Your task to perform on an android device: open a new tab in the chrome app Image 0: 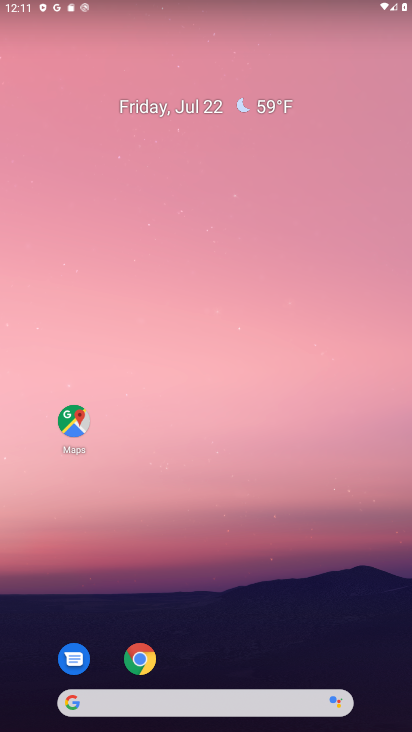
Step 0: drag from (385, 611) to (247, 0)
Your task to perform on an android device: open a new tab in the chrome app Image 1: 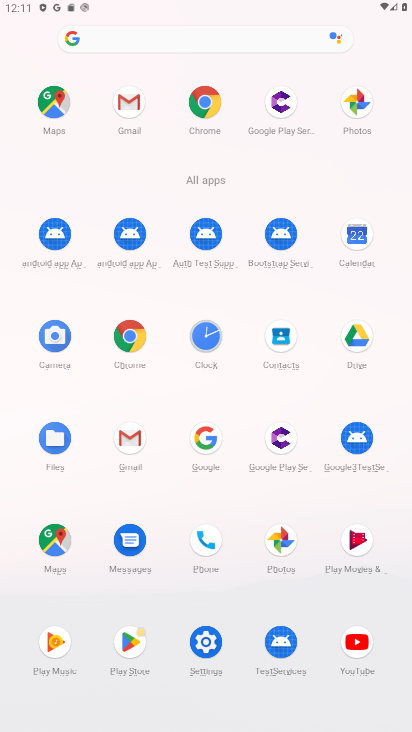
Step 1: click (207, 110)
Your task to perform on an android device: open a new tab in the chrome app Image 2: 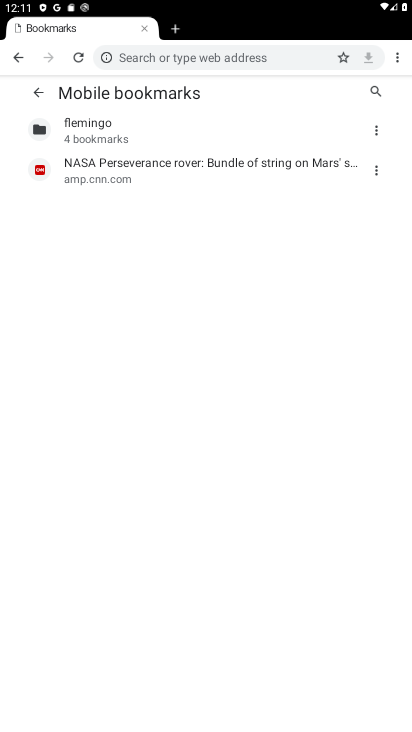
Step 2: task complete